Your task to perform on an android device: Open Google Maps and go to "Timeline" Image 0: 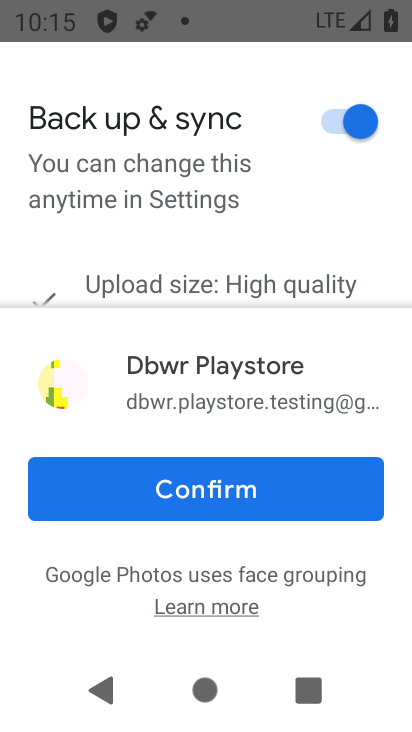
Step 0: press home button
Your task to perform on an android device: Open Google Maps and go to "Timeline" Image 1: 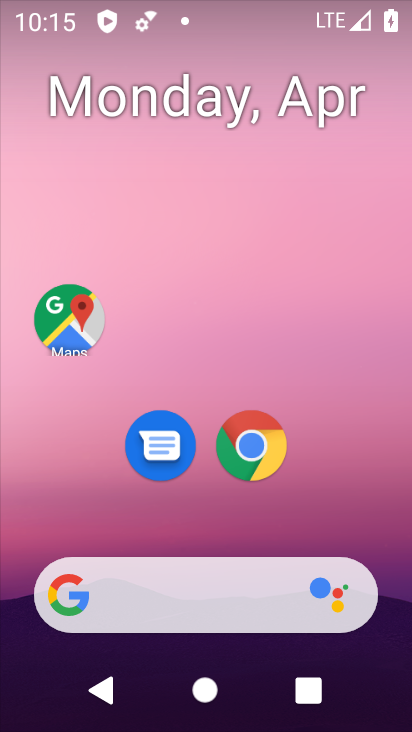
Step 1: drag from (120, 553) to (87, 357)
Your task to perform on an android device: Open Google Maps and go to "Timeline" Image 2: 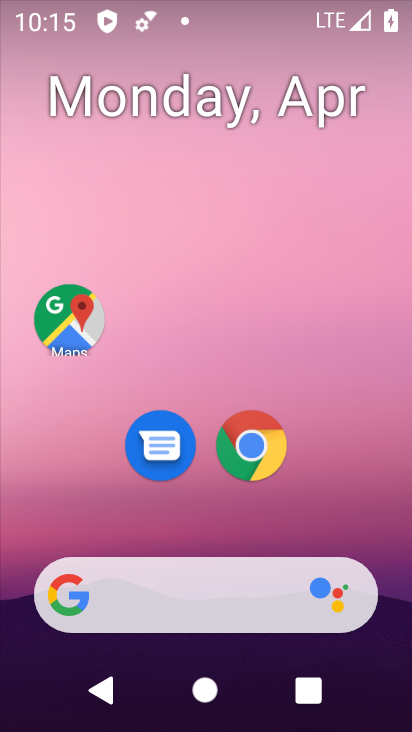
Step 2: click (61, 318)
Your task to perform on an android device: Open Google Maps and go to "Timeline" Image 3: 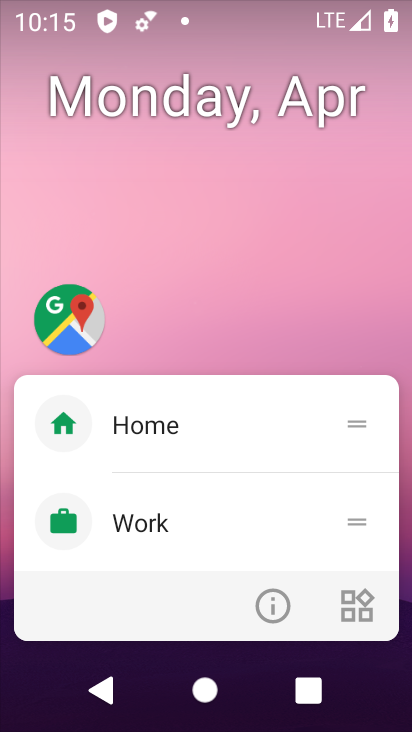
Step 3: click (61, 318)
Your task to perform on an android device: Open Google Maps and go to "Timeline" Image 4: 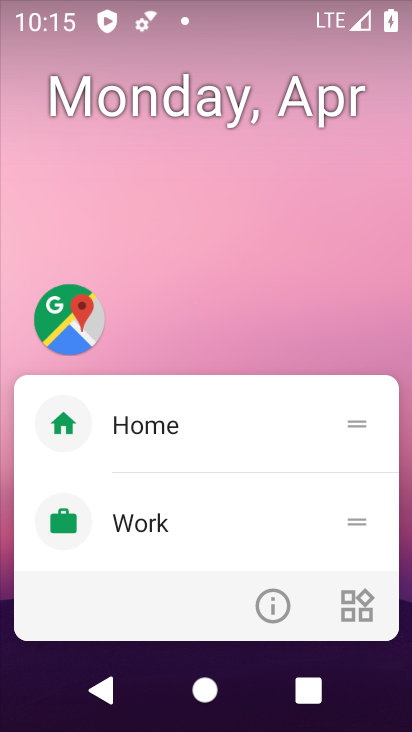
Step 4: click (61, 318)
Your task to perform on an android device: Open Google Maps and go to "Timeline" Image 5: 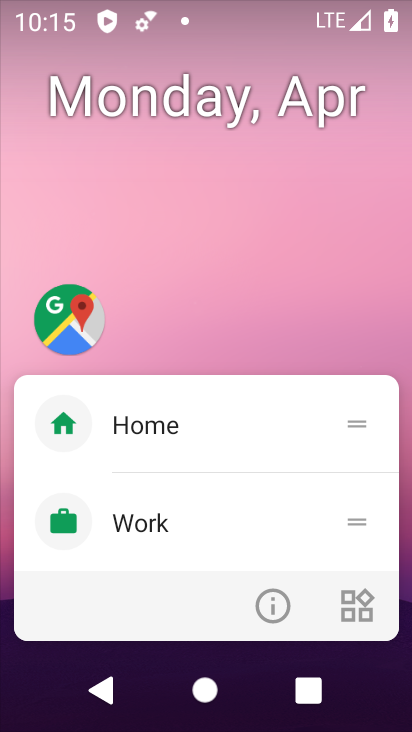
Step 5: click (58, 317)
Your task to perform on an android device: Open Google Maps and go to "Timeline" Image 6: 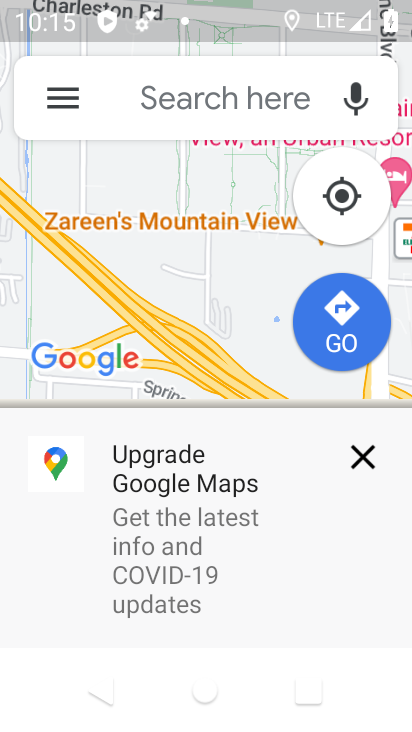
Step 6: click (67, 109)
Your task to perform on an android device: Open Google Maps and go to "Timeline" Image 7: 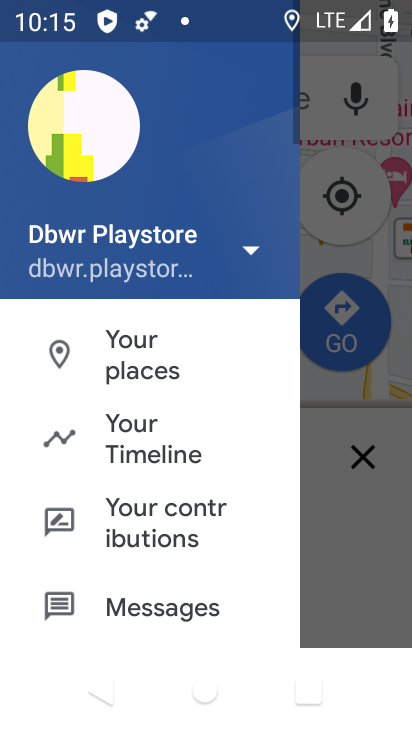
Step 7: click (158, 438)
Your task to perform on an android device: Open Google Maps and go to "Timeline" Image 8: 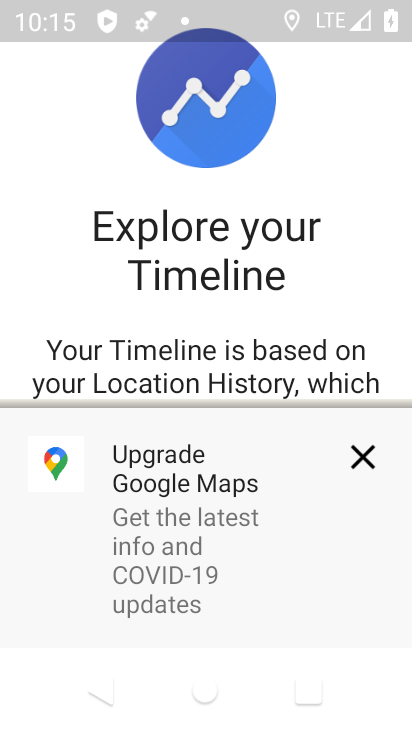
Step 8: click (357, 447)
Your task to perform on an android device: Open Google Maps and go to "Timeline" Image 9: 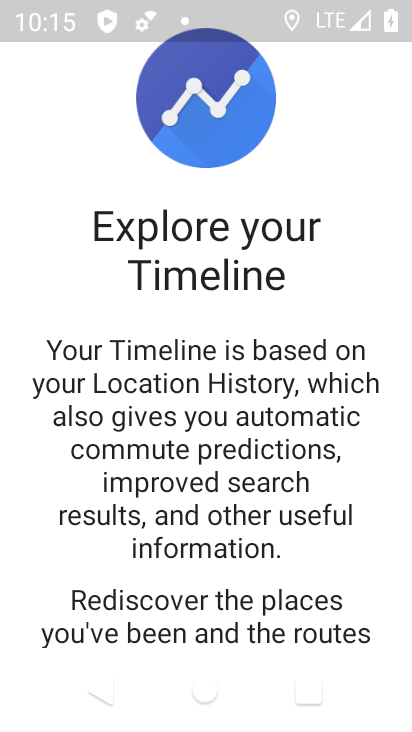
Step 9: drag from (225, 562) to (196, 290)
Your task to perform on an android device: Open Google Maps and go to "Timeline" Image 10: 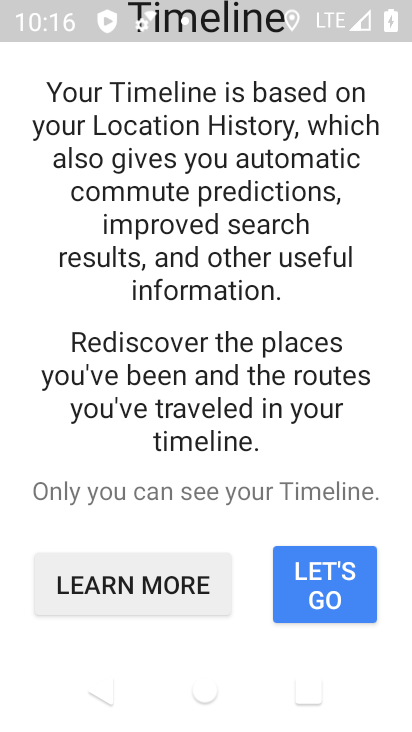
Step 10: click (362, 578)
Your task to perform on an android device: Open Google Maps and go to "Timeline" Image 11: 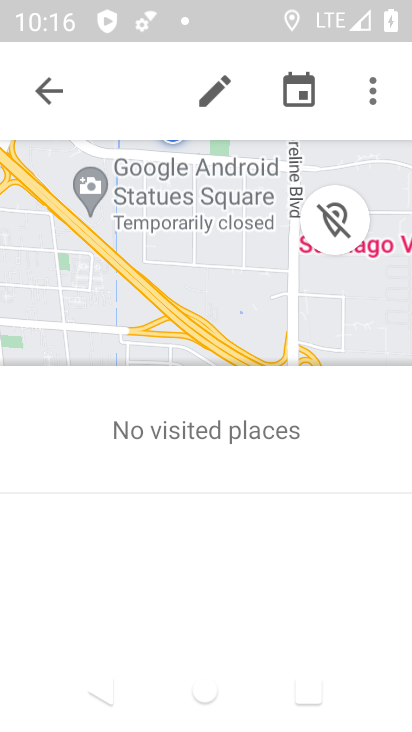
Step 11: task complete